Your task to perform on an android device: check google app version Image 0: 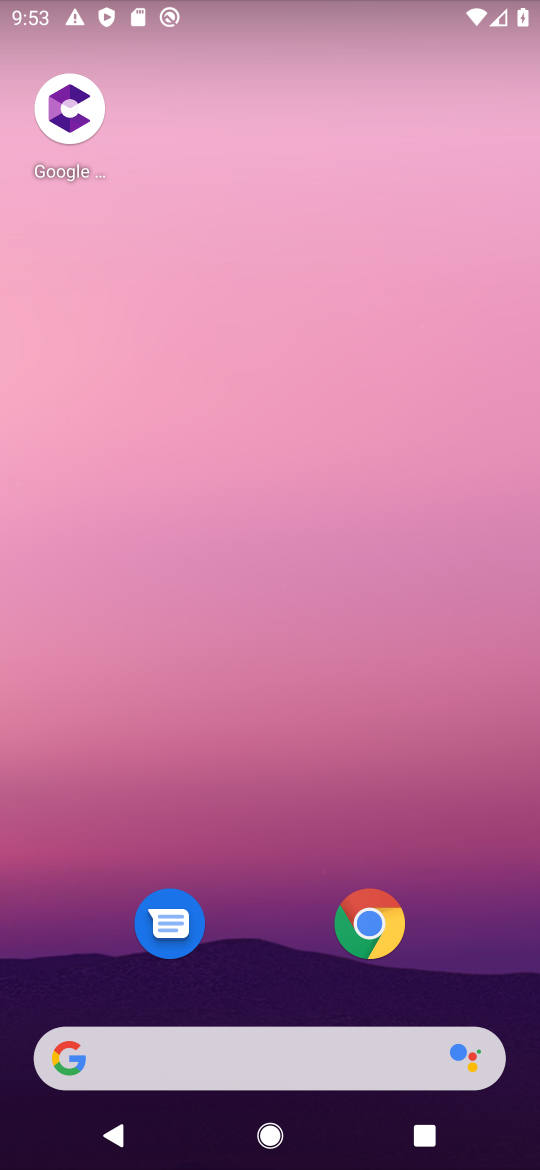
Step 0: press home button
Your task to perform on an android device: check google app version Image 1: 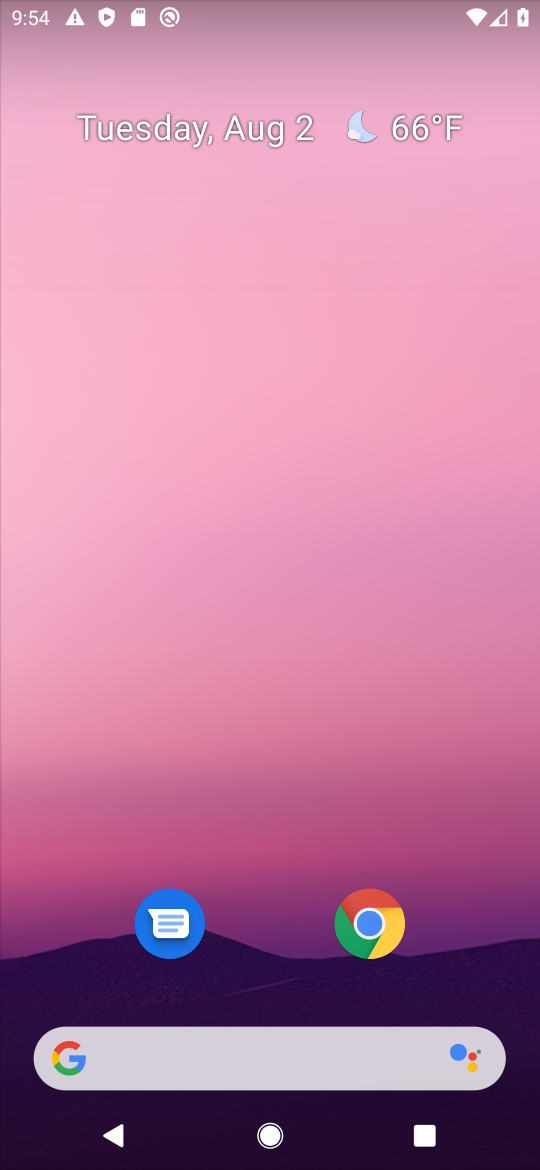
Step 1: drag from (263, 379) to (282, 243)
Your task to perform on an android device: check google app version Image 2: 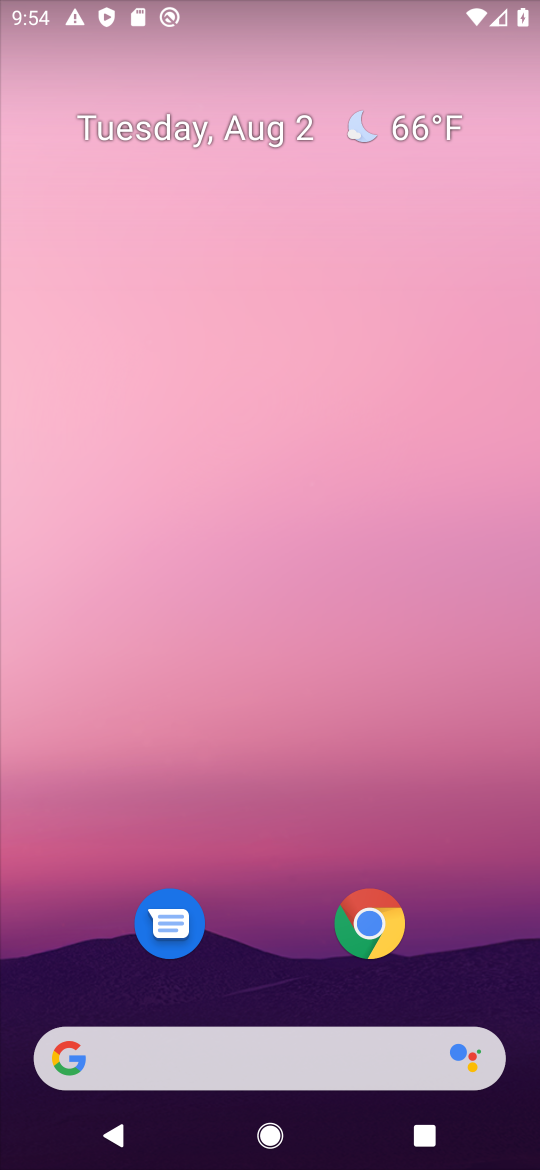
Step 2: drag from (286, 622) to (317, 38)
Your task to perform on an android device: check google app version Image 3: 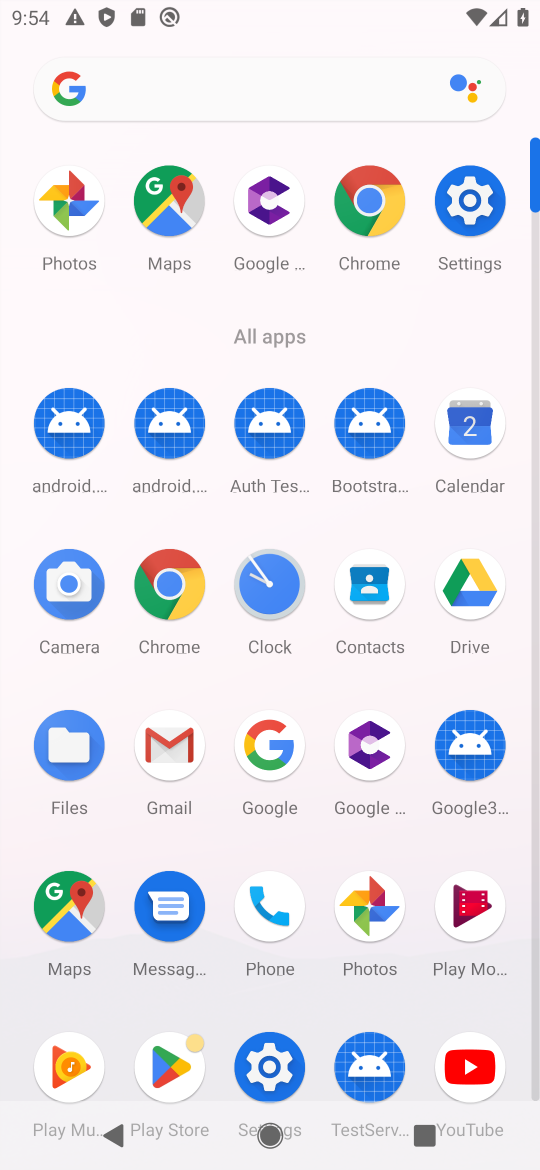
Step 3: click (279, 737)
Your task to perform on an android device: check google app version Image 4: 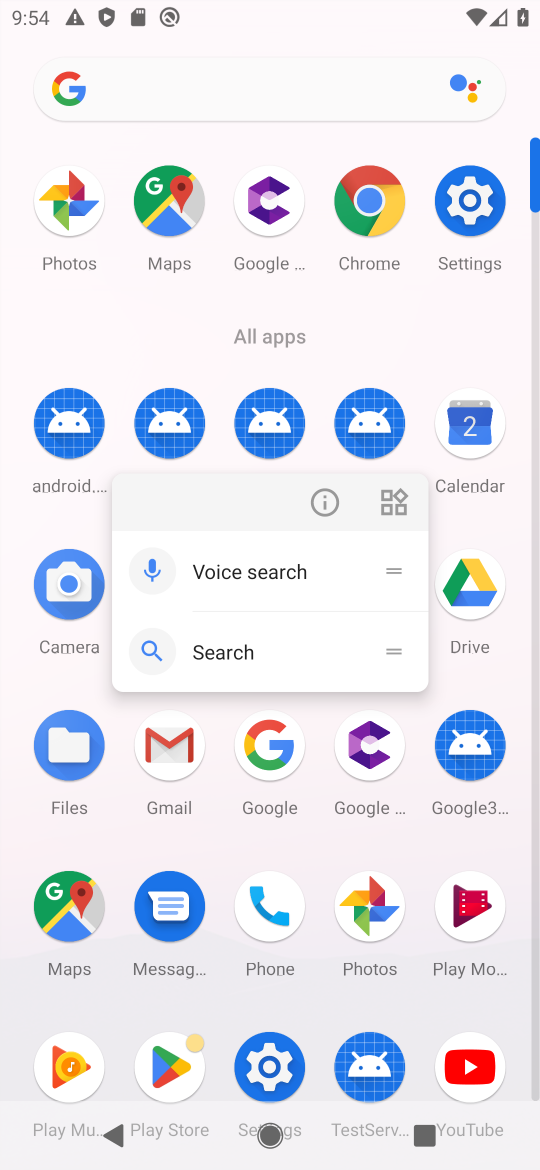
Step 4: click (329, 499)
Your task to perform on an android device: check google app version Image 5: 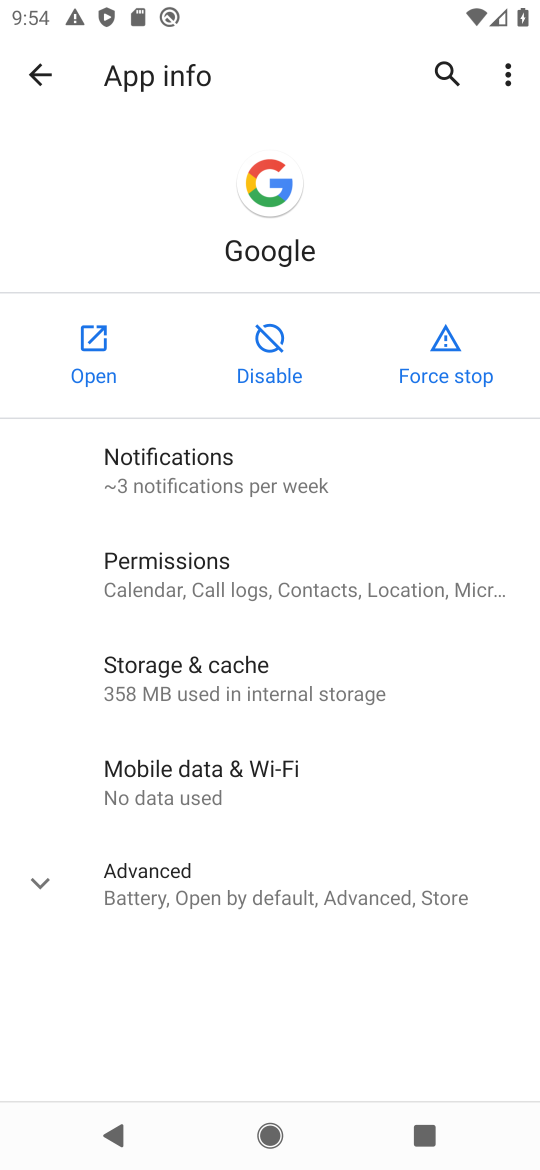
Step 5: click (55, 878)
Your task to perform on an android device: check google app version Image 6: 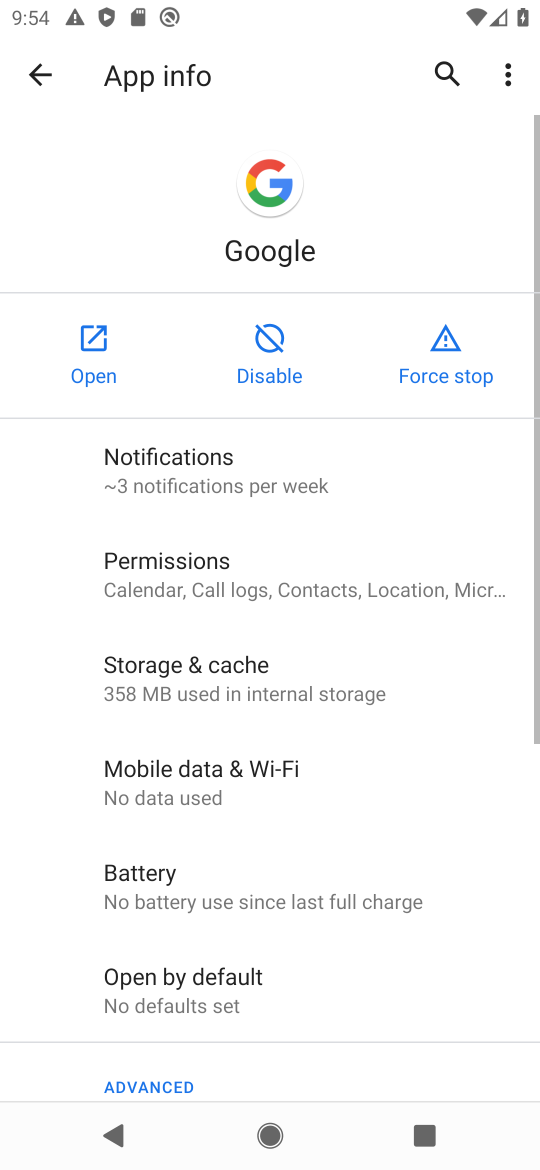
Step 6: task complete